Your task to perform on an android device: Open the web browser Image 0: 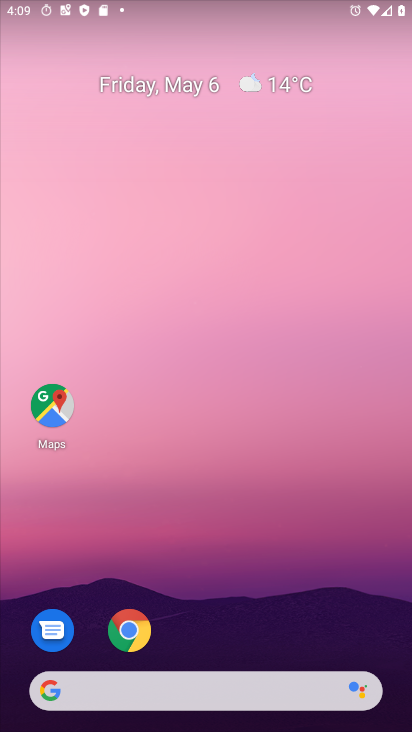
Step 0: click (194, 704)
Your task to perform on an android device: Open the web browser Image 1: 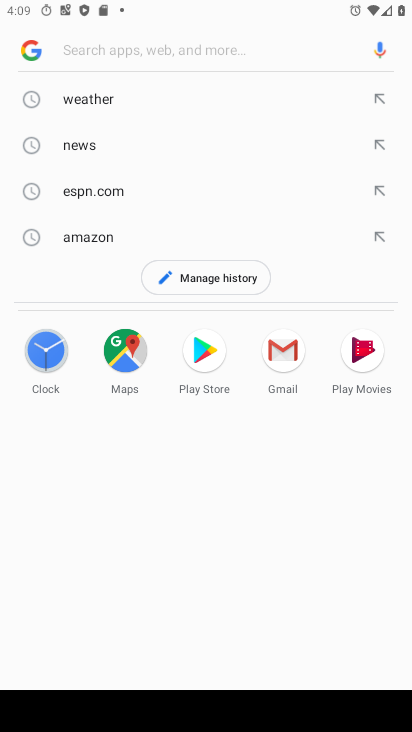
Step 1: task complete